Your task to perform on an android device: refresh tabs in the chrome app Image 0: 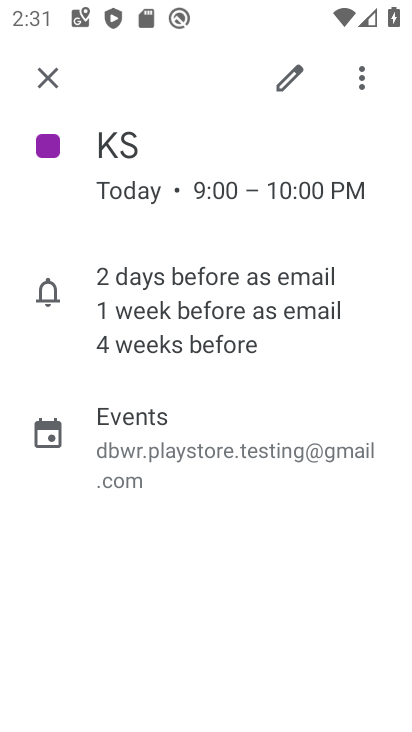
Step 0: press home button
Your task to perform on an android device: refresh tabs in the chrome app Image 1: 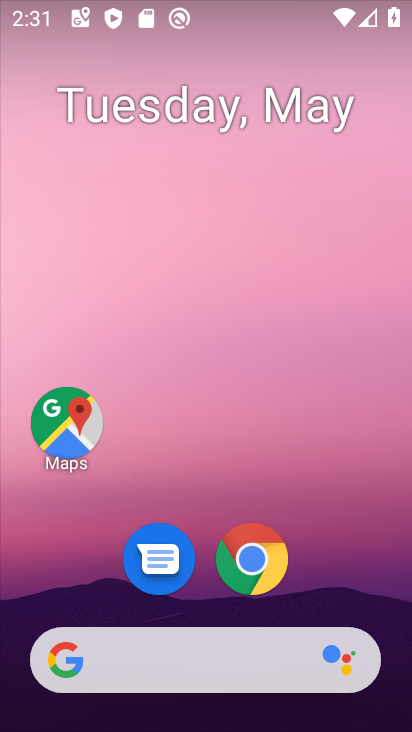
Step 1: drag from (177, 660) to (285, 235)
Your task to perform on an android device: refresh tabs in the chrome app Image 2: 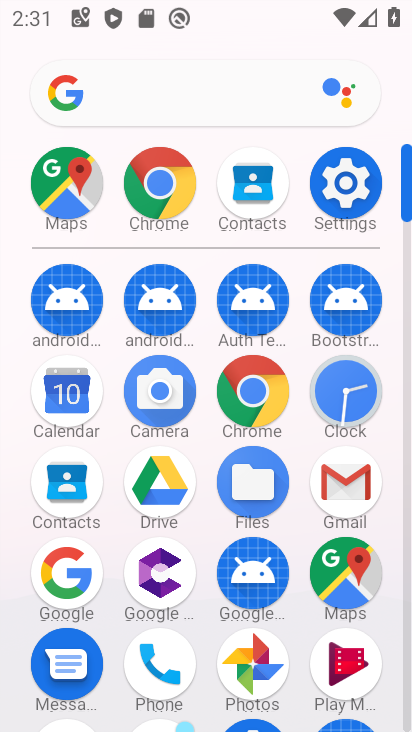
Step 2: click (158, 198)
Your task to perform on an android device: refresh tabs in the chrome app Image 3: 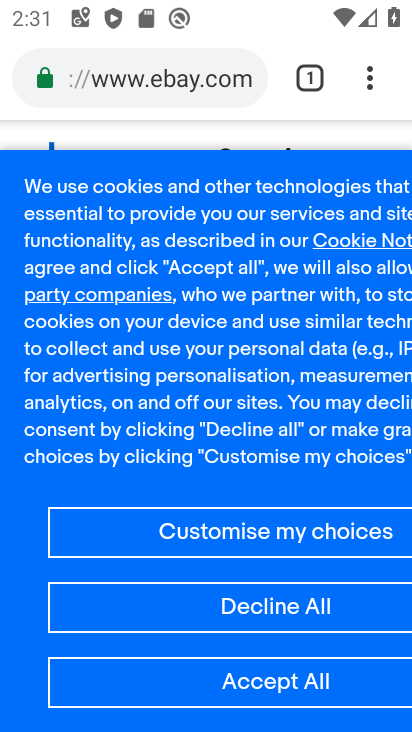
Step 3: click (367, 100)
Your task to perform on an android device: refresh tabs in the chrome app Image 4: 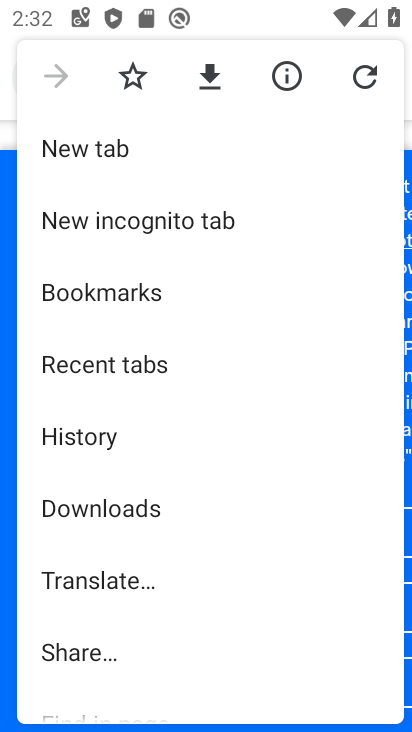
Step 4: click (354, 78)
Your task to perform on an android device: refresh tabs in the chrome app Image 5: 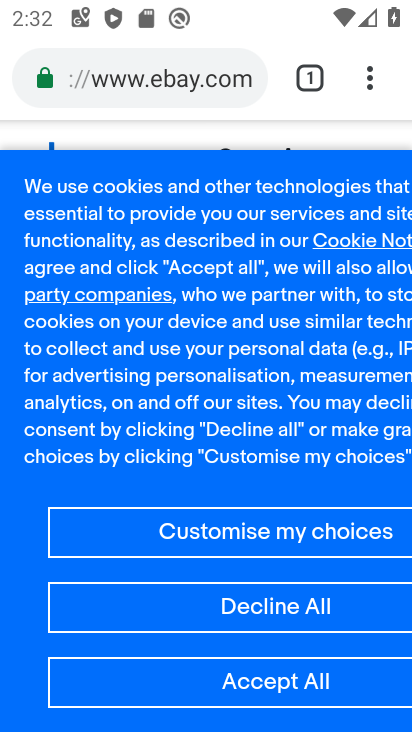
Step 5: task complete